Your task to perform on an android device: toggle notification dots Image 0: 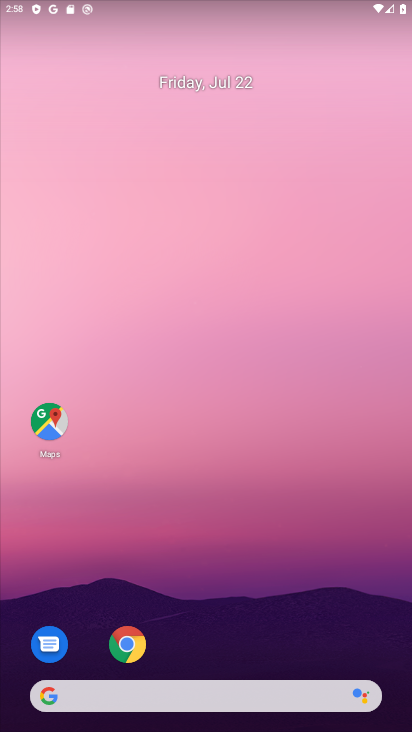
Step 0: drag from (299, 0) to (310, 381)
Your task to perform on an android device: toggle notification dots Image 1: 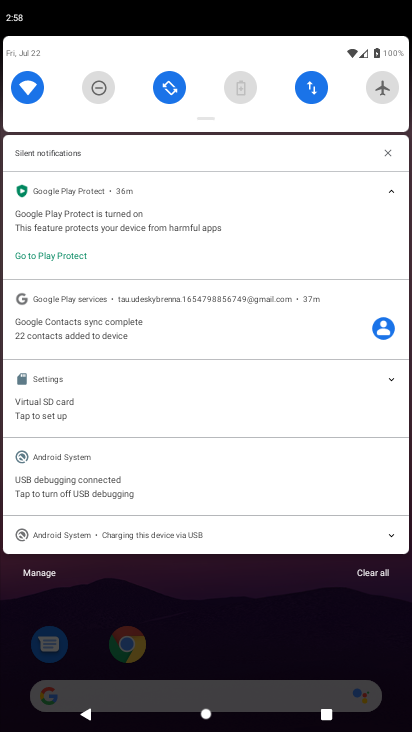
Step 1: task complete